Your task to perform on an android device: Open network settings Image 0: 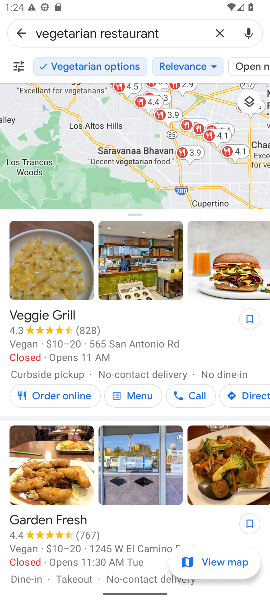
Step 0: press home button
Your task to perform on an android device: Open network settings Image 1: 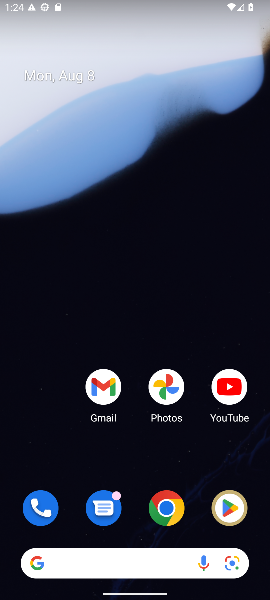
Step 1: drag from (138, 429) to (131, 90)
Your task to perform on an android device: Open network settings Image 2: 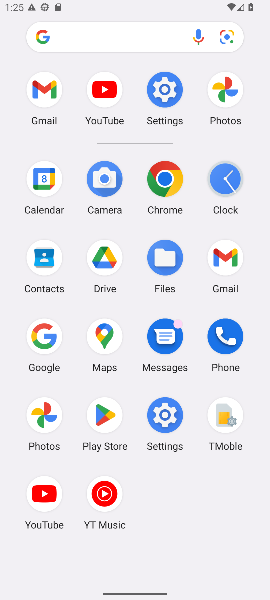
Step 2: click (164, 92)
Your task to perform on an android device: Open network settings Image 3: 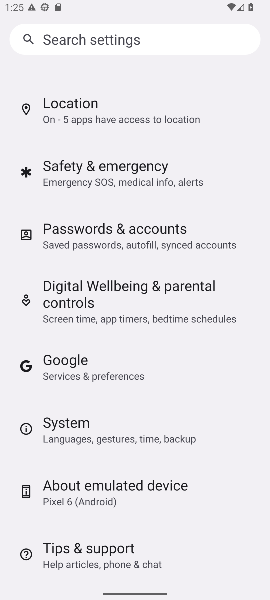
Step 3: drag from (135, 135) to (117, 538)
Your task to perform on an android device: Open network settings Image 4: 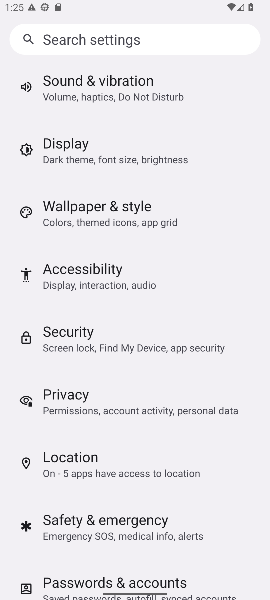
Step 4: drag from (133, 127) to (110, 459)
Your task to perform on an android device: Open network settings Image 5: 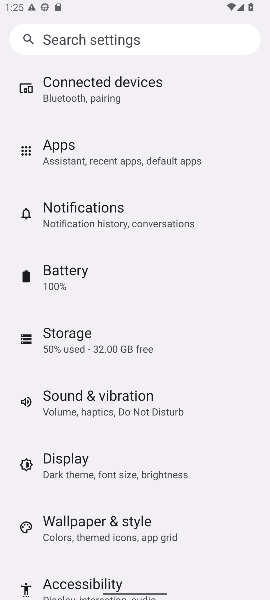
Step 5: drag from (133, 172) to (97, 550)
Your task to perform on an android device: Open network settings Image 6: 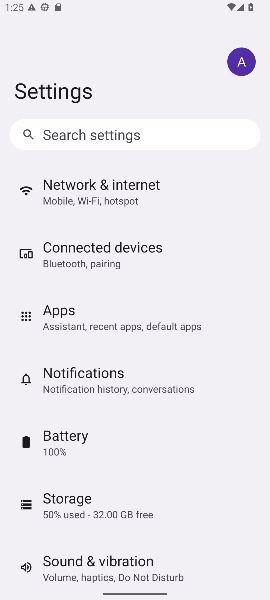
Step 6: click (158, 194)
Your task to perform on an android device: Open network settings Image 7: 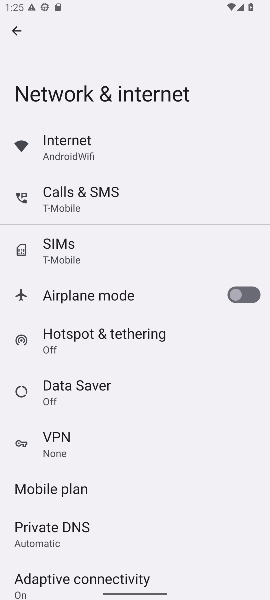
Step 7: task complete